Your task to perform on an android device: Clear the shopping cart on ebay. Add alienware aurora to the cart on ebay, then select checkout. Image 0: 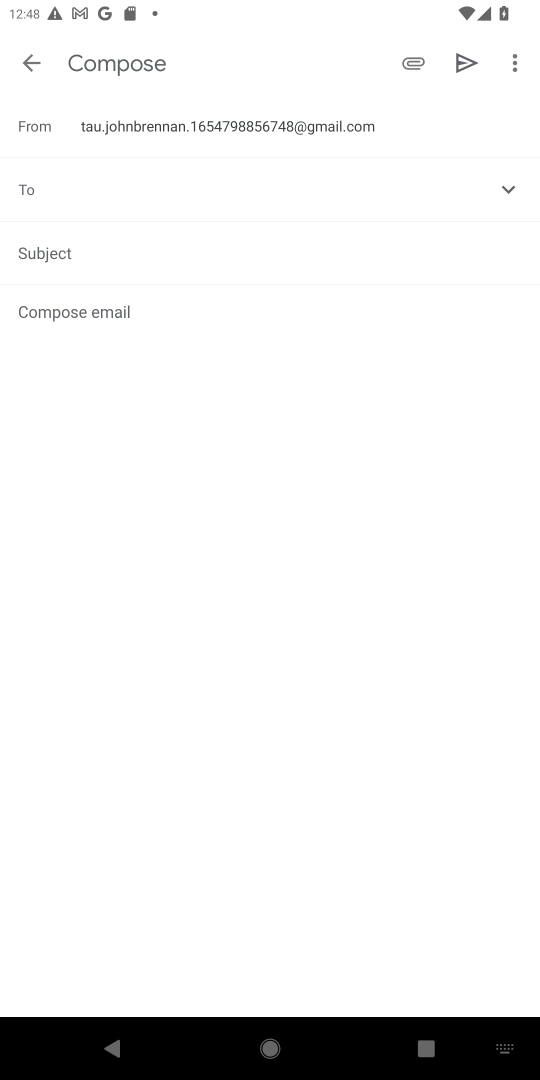
Step 0: press home button
Your task to perform on an android device: Clear the shopping cart on ebay. Add alienware aurora to the cart on ebay, then select checkout. Image 1: 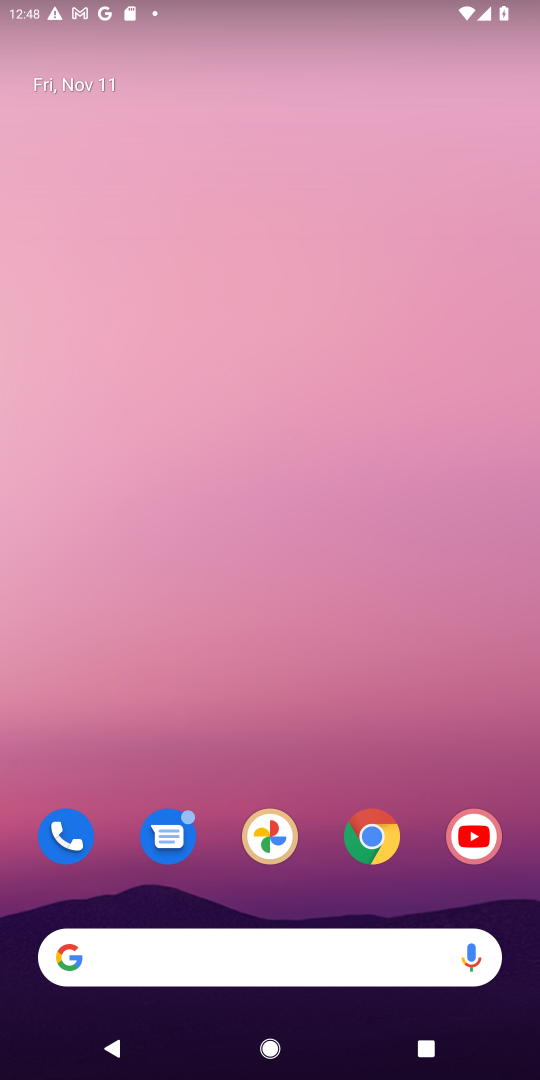
Step 1: click (292, 952)
Your task to perform on an android device: Clear the shopping cart on ebay. Add alienware aurora to the cart on ebay, then select checkout. Image 2: 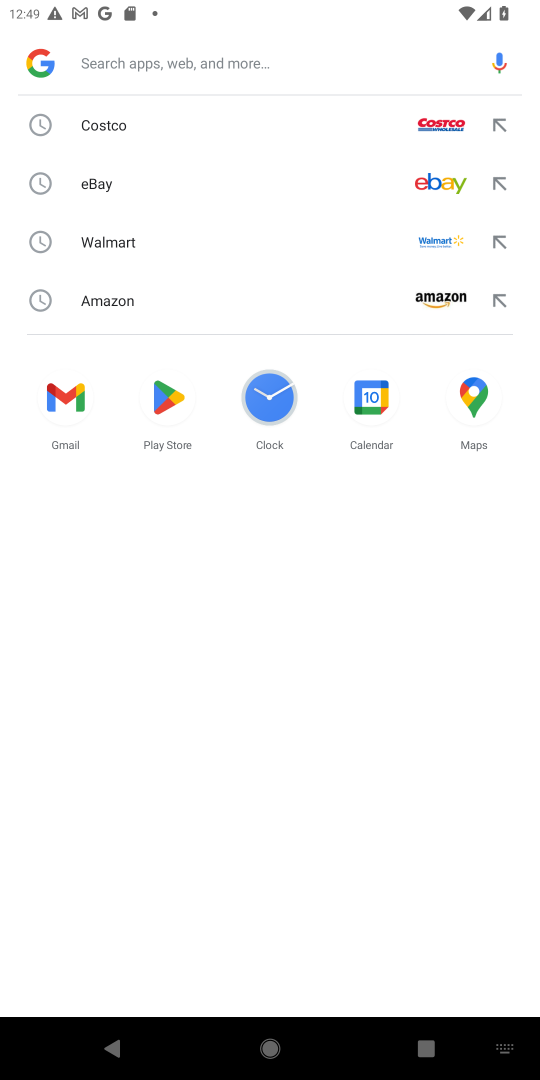
Step 2: click (198, 179)
Your task to perform on an android device: Clear the shopping cart on ebay. Add alienware aurora to the cart on ebay, then select checkout. Image 3: 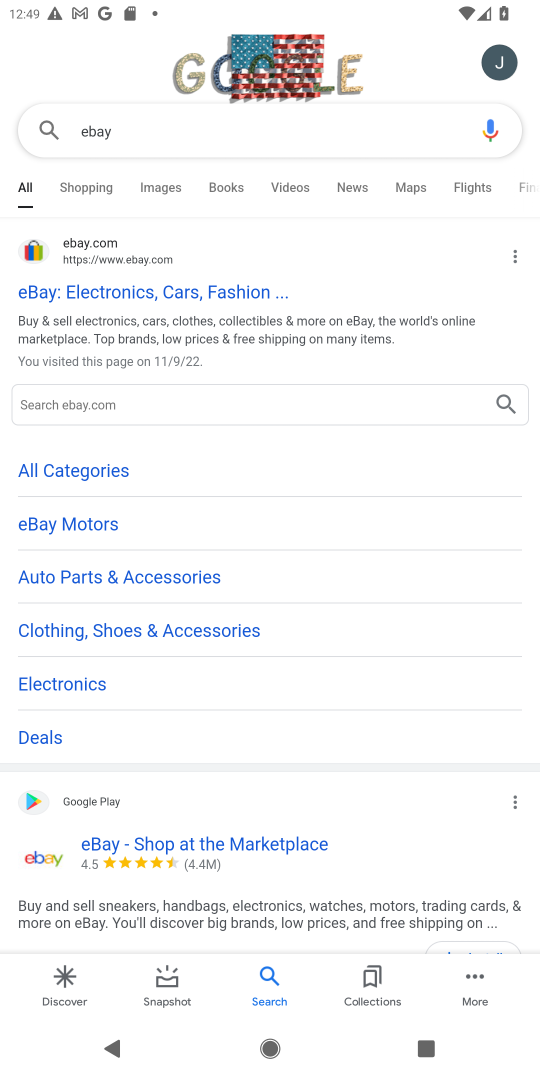
Step 3: click (91, 245)
Your task to perform on an android device: Clear the shopping cart on ebay. Add alienware aurora to the cart on ebay, then select checkout. Image 4: 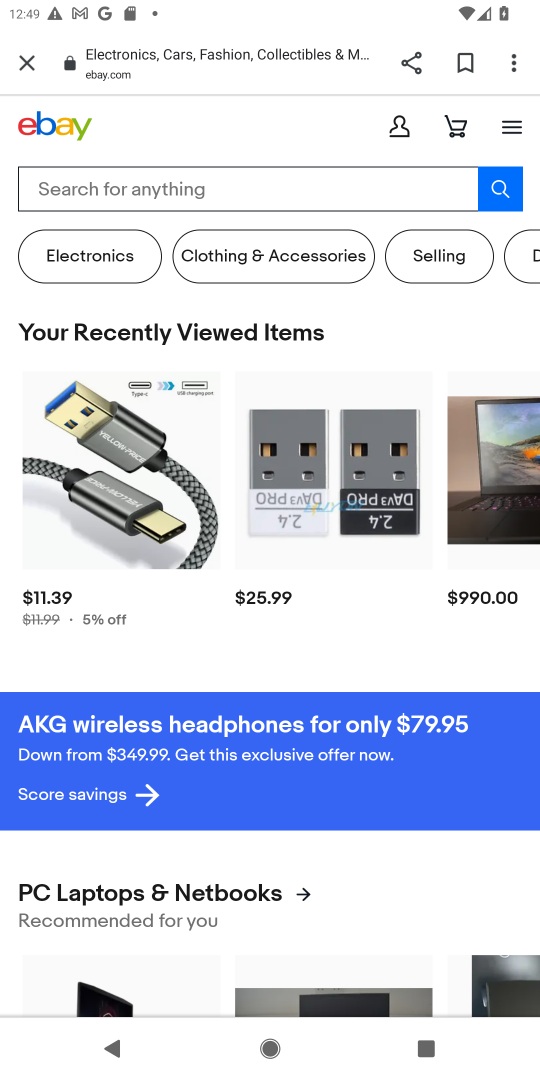
Step 4: click (145, 180)
Your task to perform on an android device: Clear the shopping cart on ebay. Add alienware aurora to the cart on ebay, then select checkout. Image 5: 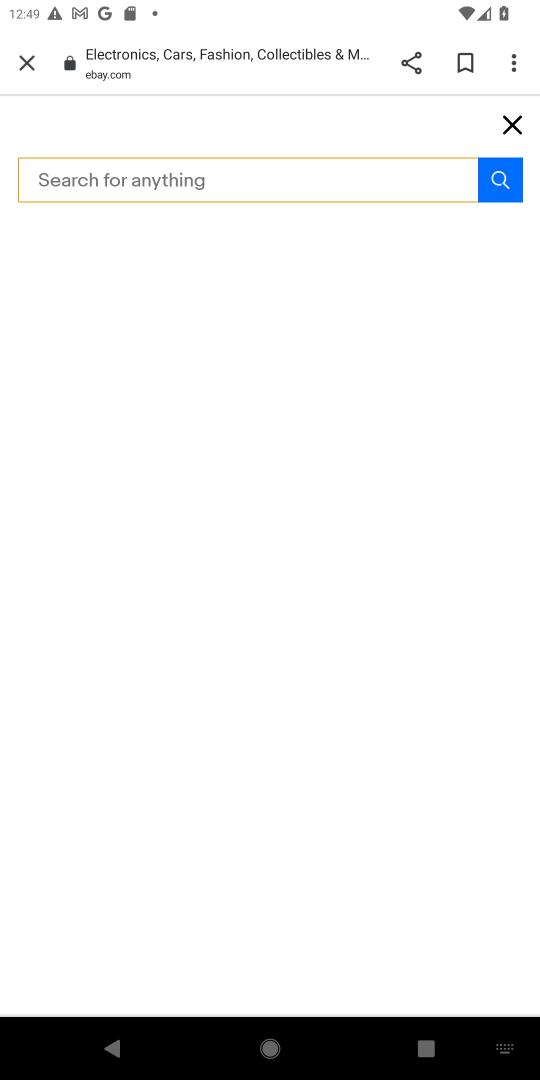
Step 5: click (503, 119)
Your task to perform on an android device: Clear the shopping cart on ebay. Add alienware aurora to the cart on ebay, then select checkout. Image 6: 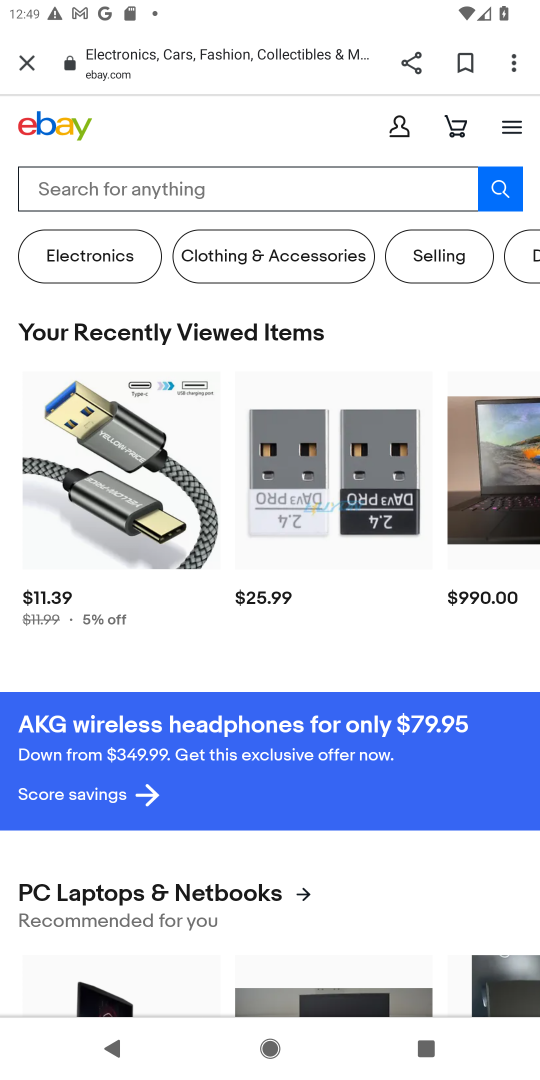
Step 6: click (454, 116)
Your task to perform on an android device: Clear the shopping cart on ebay. Add alienware aurora to the cart on ebay, then select checkout. Image 7: 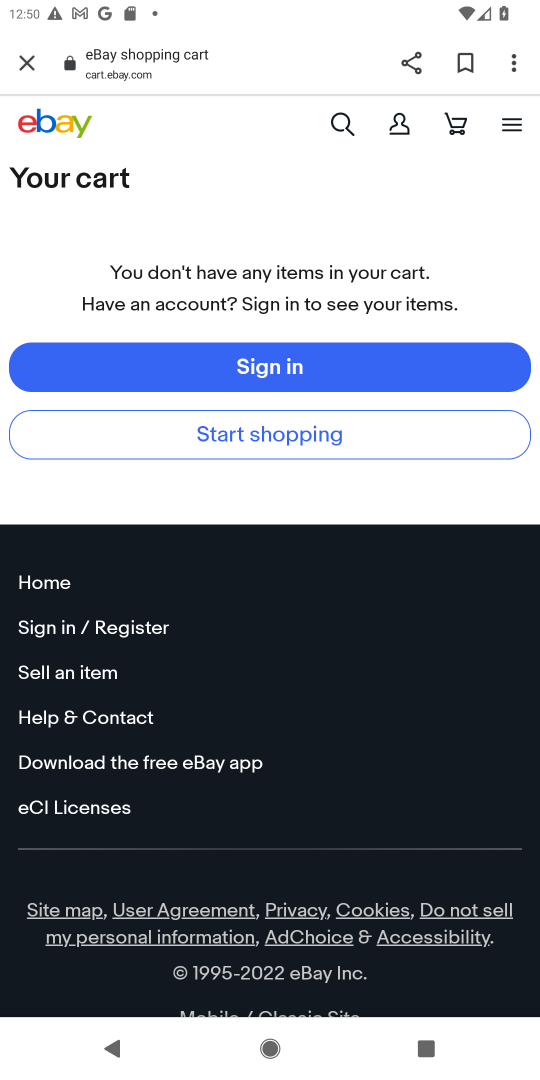
Step 7: click (337, 122)
Your task to perform on an android device: Clear the shopping cart on ebay. Add alienware aurora to the cart on ebay, then select checkout. Image 8: 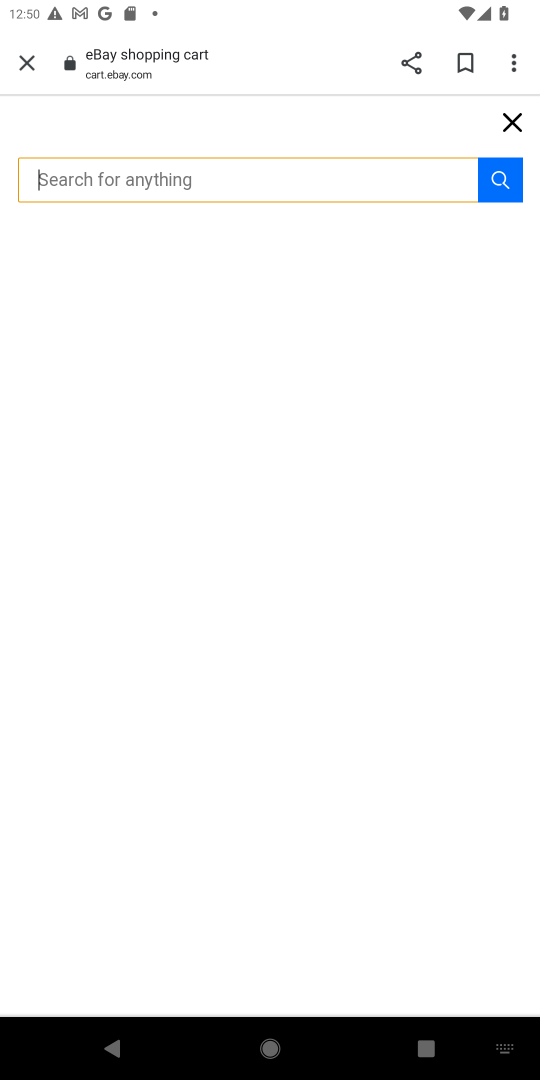
Step 8: type "alienware aurora"
Your task to perform on an android device: Clear the shopping cart on ebay. Add alienware aurora to the cart on ebay, then select checkout. Image 9: 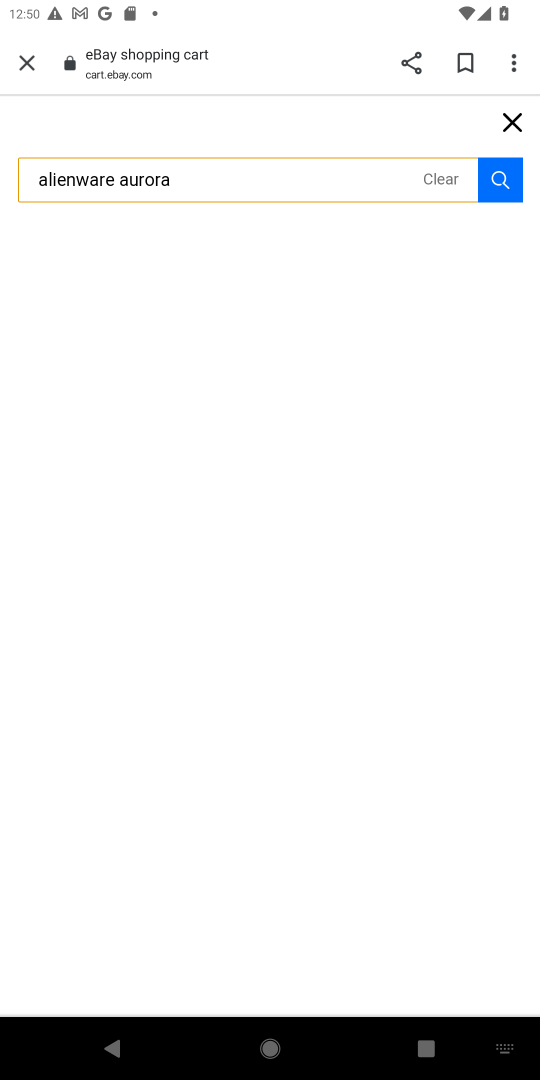
Step 9: click (495, 169)
Your task to perform on an android device: Clear the shopping cart on ebay. Add alienware aurora to the cart on ebay, then select checkout. Image 10: 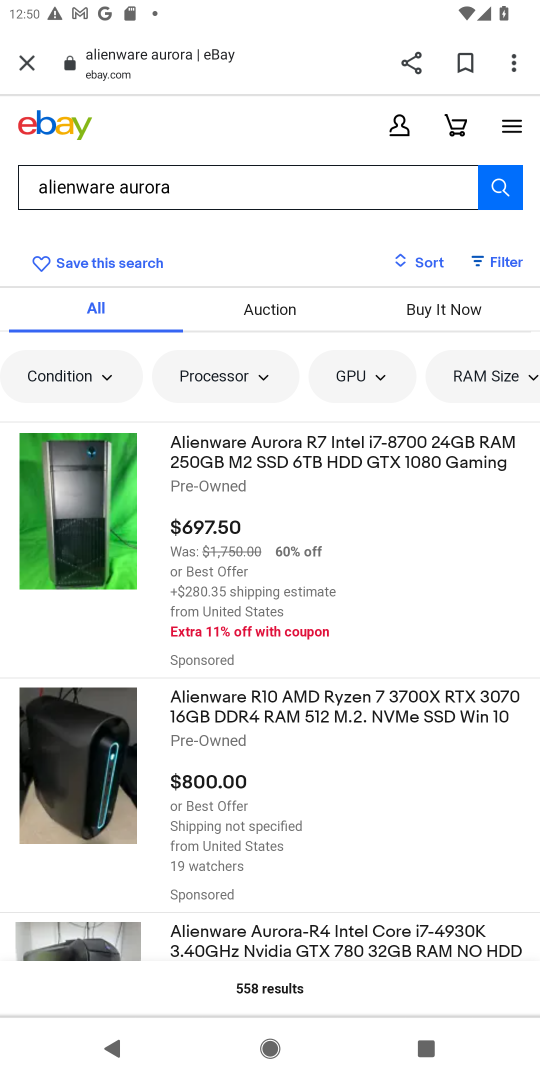
Step 10: click (227, 449)
Your task to perform on an android device: Clear the shopping cart on ebay. Add alienware aurora to the cart on ebay, then select checkout. Image 11: 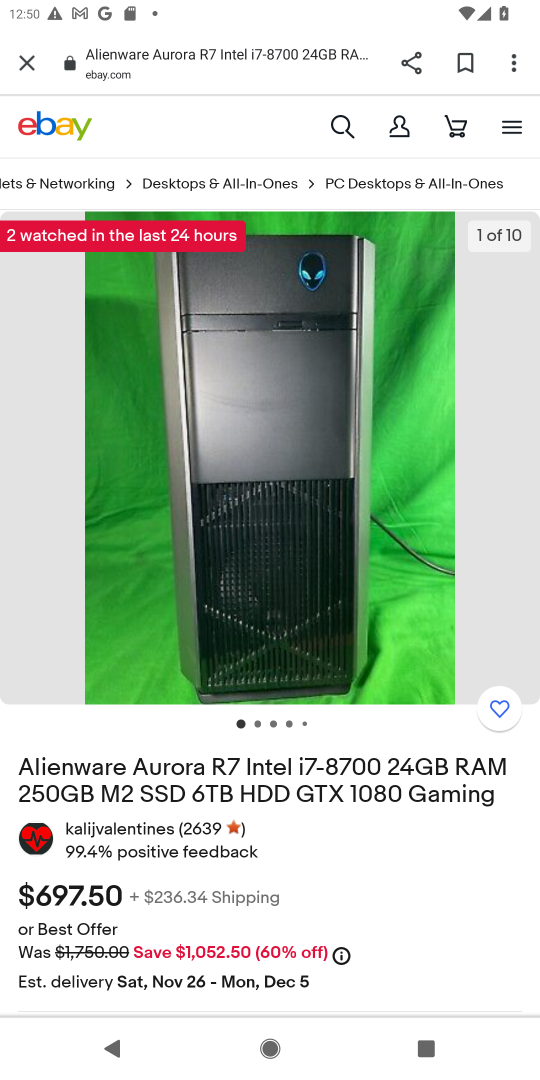
Step 11: drag from (387, 760) to (444, 378)
Your task to perform on an android device: Clear the shopping cart on ebay. Add alienware aurora to the cart on ebay, then select checkout. Image 12: 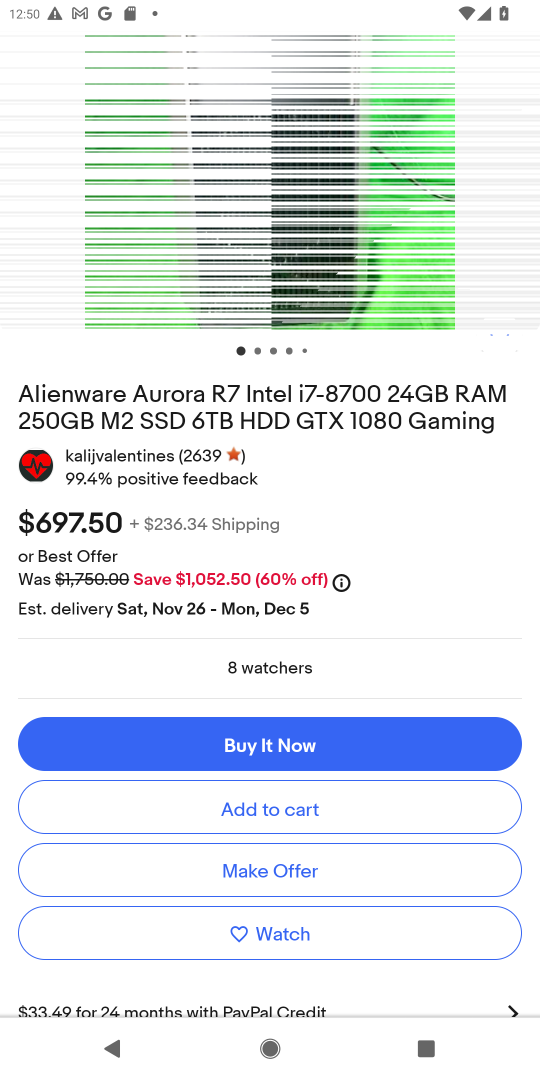
Step 12: click (255, 807)
Your task to perform on an android device: Clear the shopping cart on ebay. Add alienware aurora to the cart on ebay, then select checkout. Image 13: 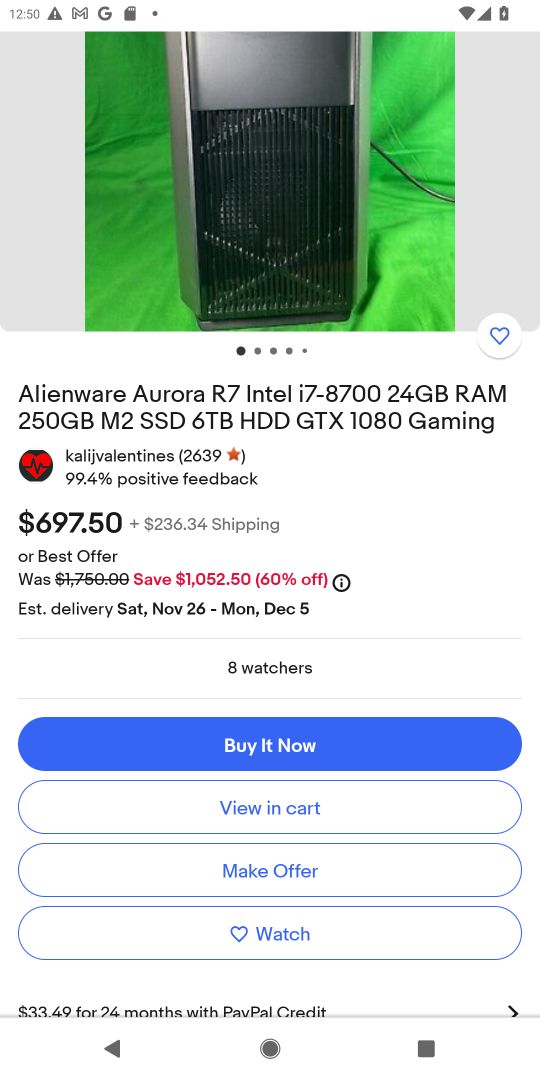
Step 13: click (255, 807)
Your task to perform on an android device: Clear the shopping cart on ebay. Add alienware aurora to the cart on ebay, then select checkout. Image 14: 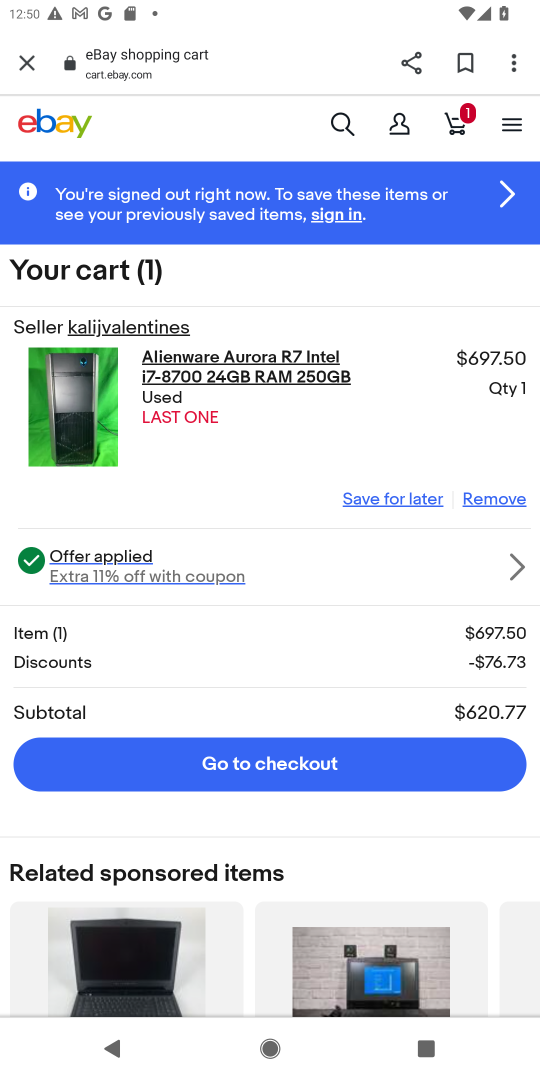
Step 14: click (280, 766)
Your task to perform on an android device: Clear the shopping cart on ebay. Add alienware aurora to the cart on ebay, then select checkout. Image 15: 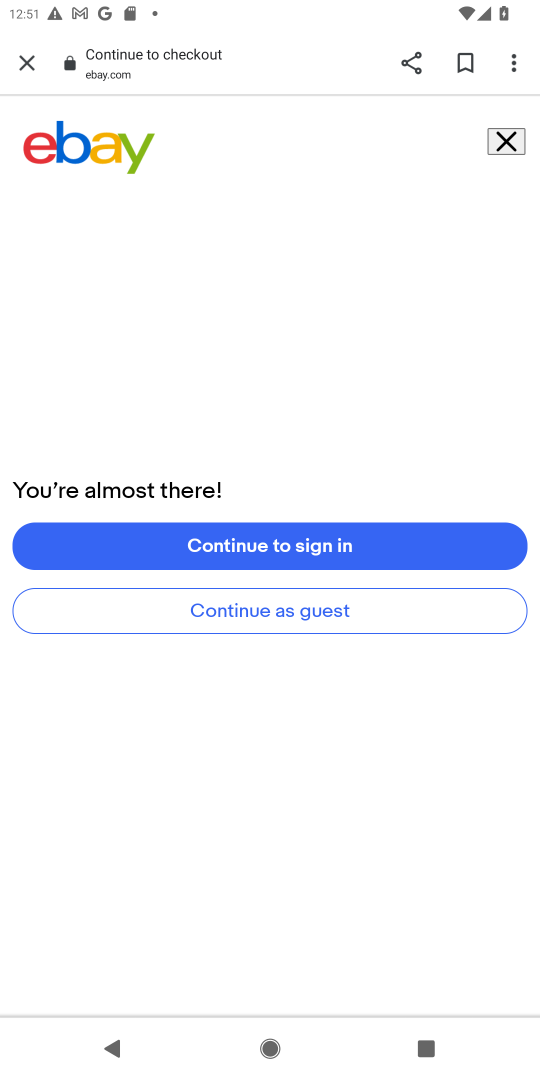
Step 15: task complete